Your task to perform on an android device: check out phone information Image 0: 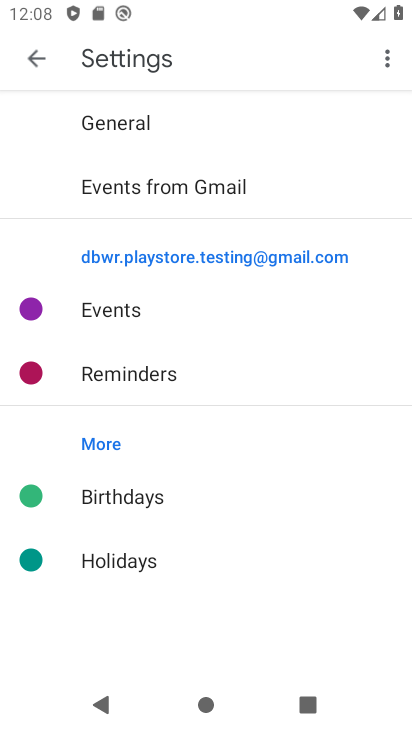
Step 0: press home button
Your task to perform on an android device: check out phone information Image 1: 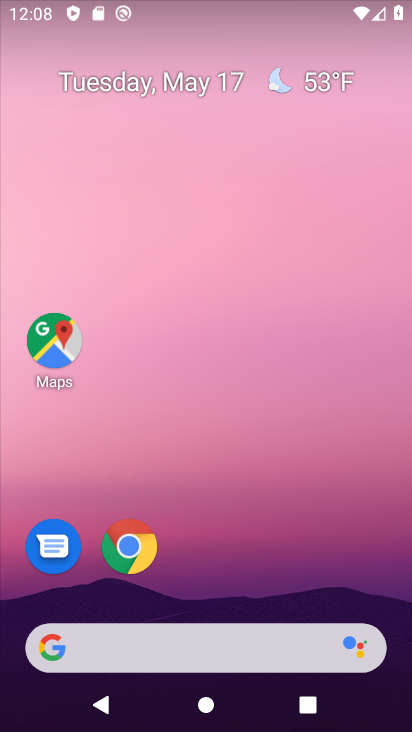
Step 1: drag from (208, 592) to (223, 32)
Your task to perform on an android device: check out phone information Image 2: 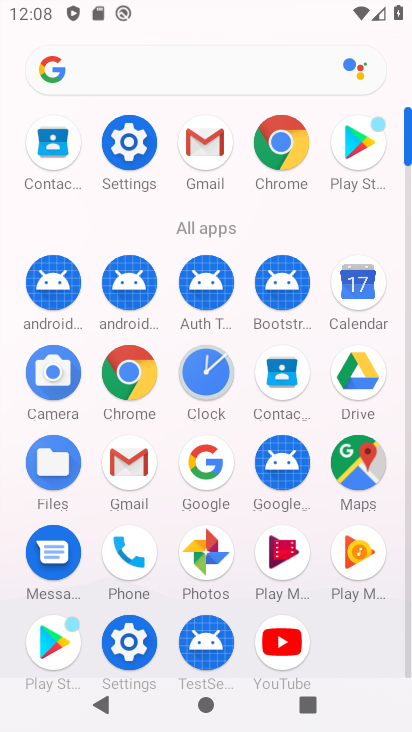
Step 2: click (136, 639)
Your task to perform on an android device: check out phone information Image 3: 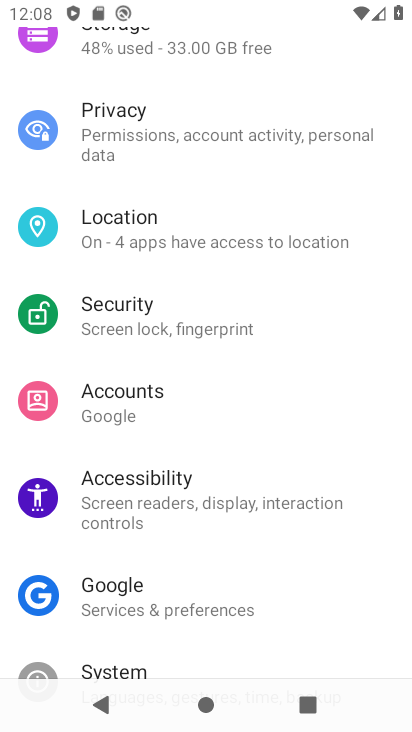
Step 3: drag from (189, 631) to (224, 81)
Your task to perform on an android device: check out phone information Image 4: 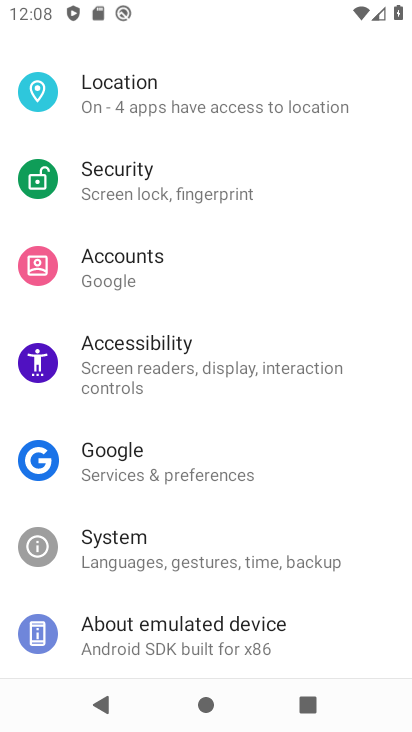
Step 4: drag from (226, 568) to (245, 206)
Your task to perform on an android device: check out phone information Image 5: 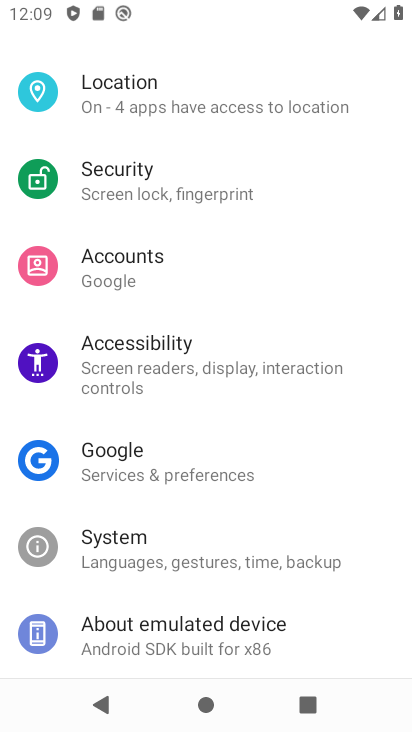
Step 5: click (192, 629)
Your task to perform on an android device: check out phone information Image 6: 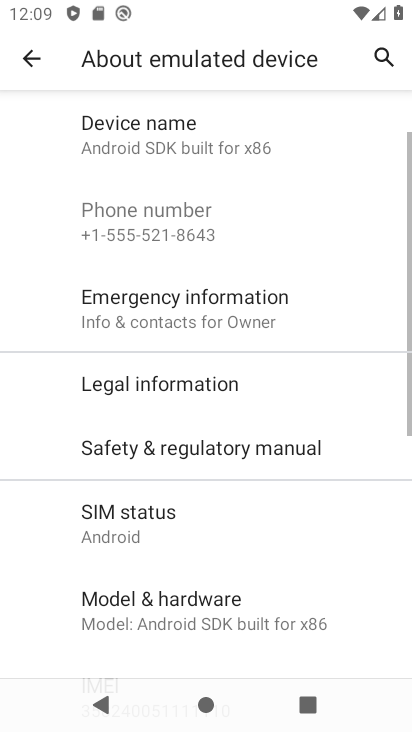
Step 6: task complete